Your task to perform on an android device: uninstall "Gboard" Image 0: 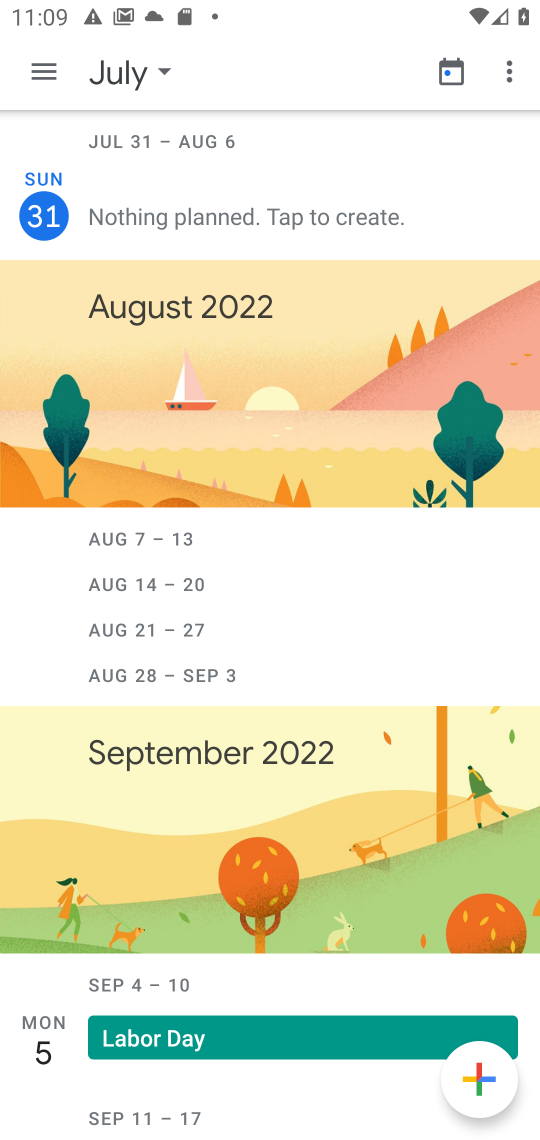
Step 0: press home button
Your task to perform on an android device: uninstall "Gboard" Image 1: 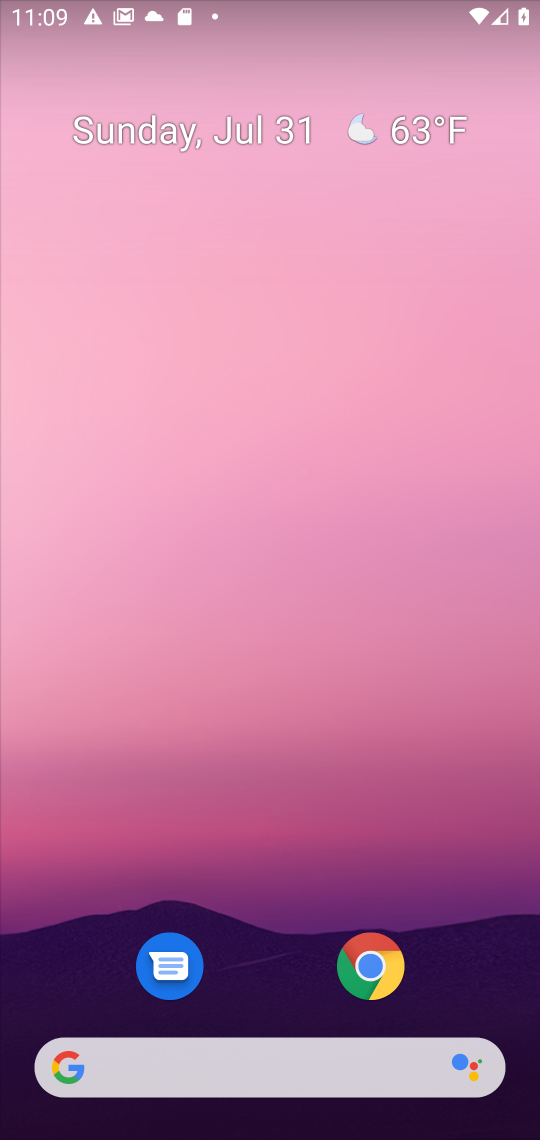
Step 1: drag from (280, 957) to (199, 72)
Your task to perform on an android device: uninstall "Gboard" Image 2: 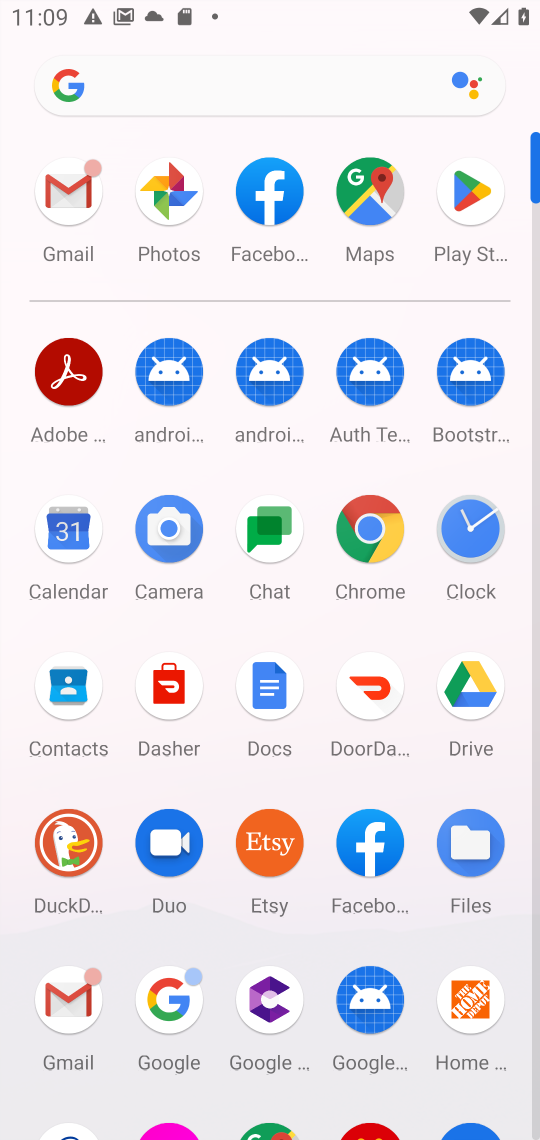
Step 2: click (479, 228)
Your task to perform on an android device: uninstall "Gboard" Image 3: 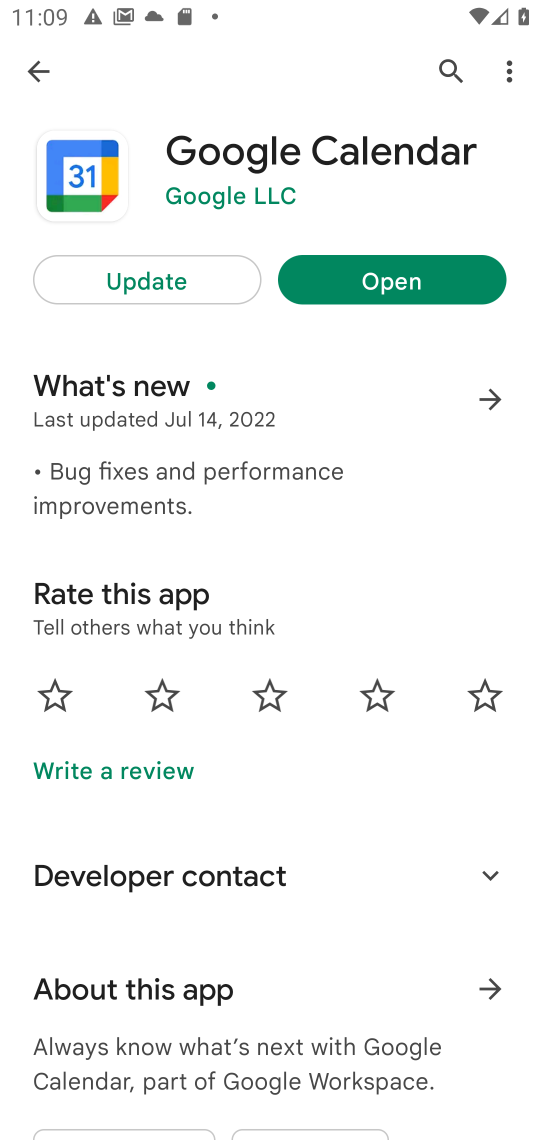
Step 3: click (30, 79)
Your task to perform on an android device: uninstall "Gboard" Image 4: 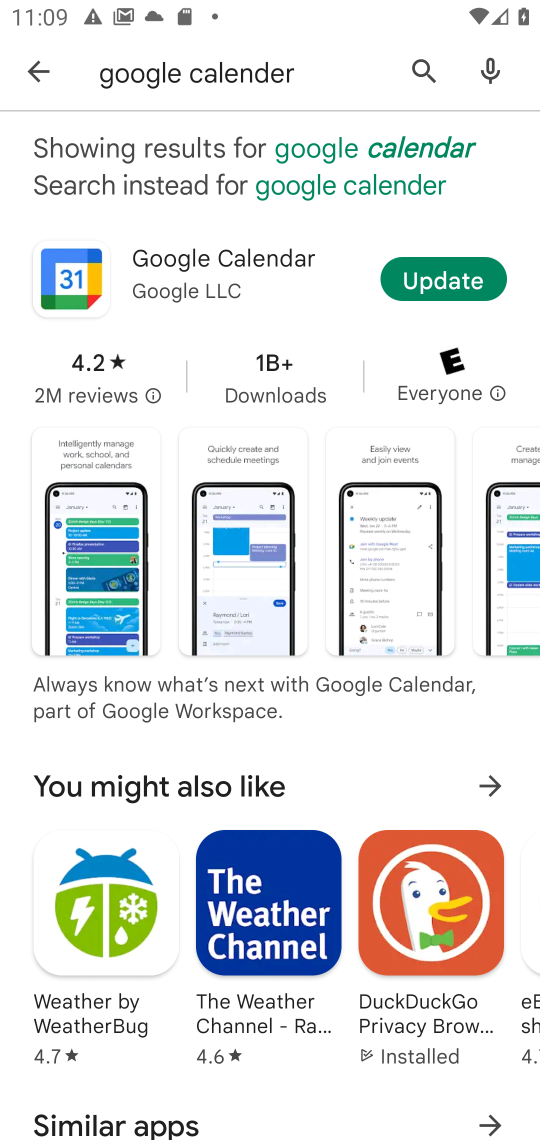
Step 4: click (205, 87)
Your task to perform on an android device: uninstall "Gboard" Image 5: 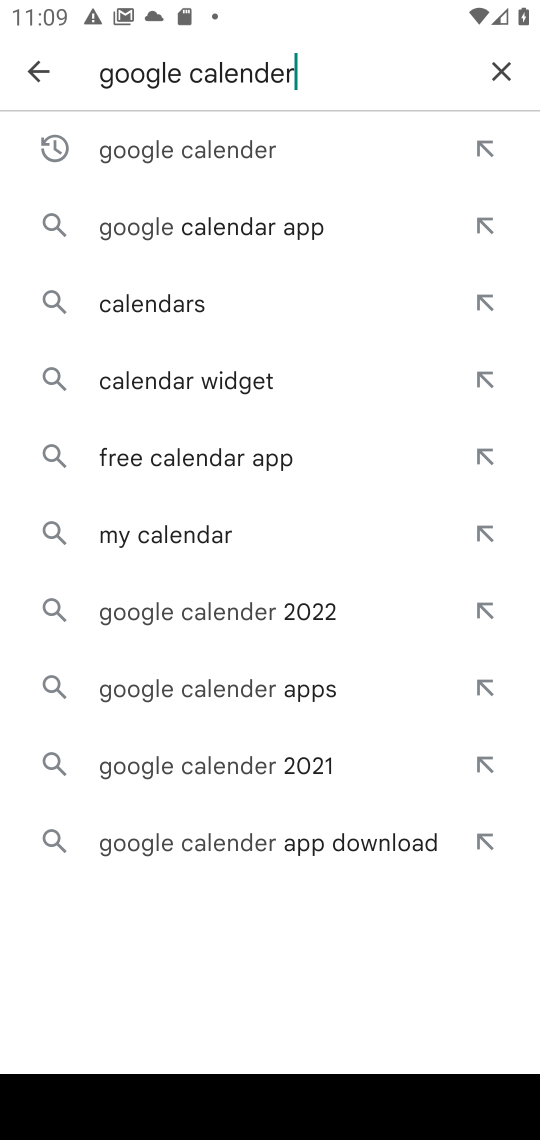
Step 5: click (490, 68)
Your task to perform on an android device: uninstall "Gboard" Image 6: 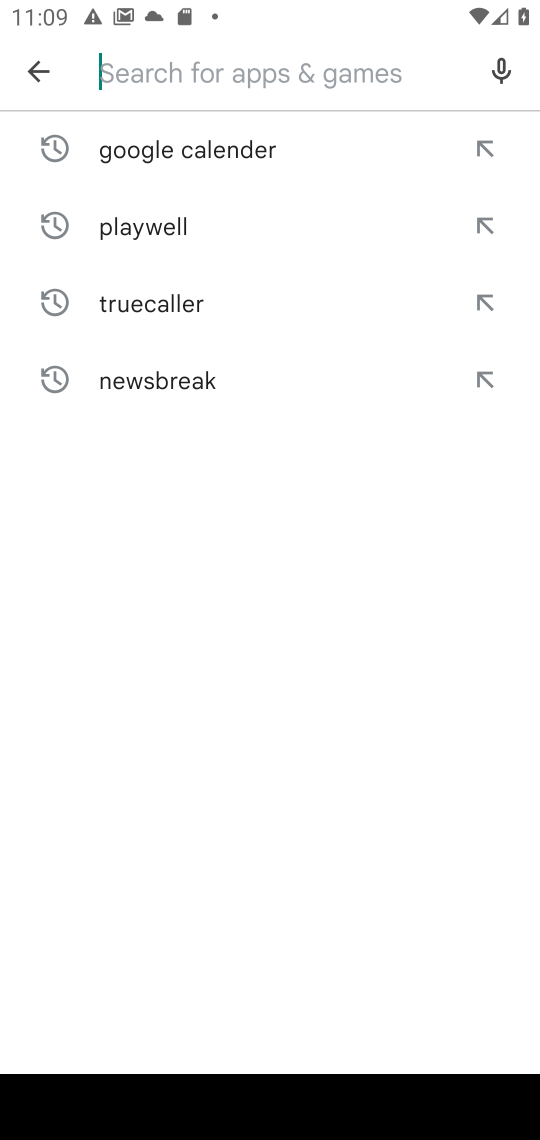
Step 6: type "Gboard"
Your task to perform on an android device: uninstall "Gboard" Image 7: 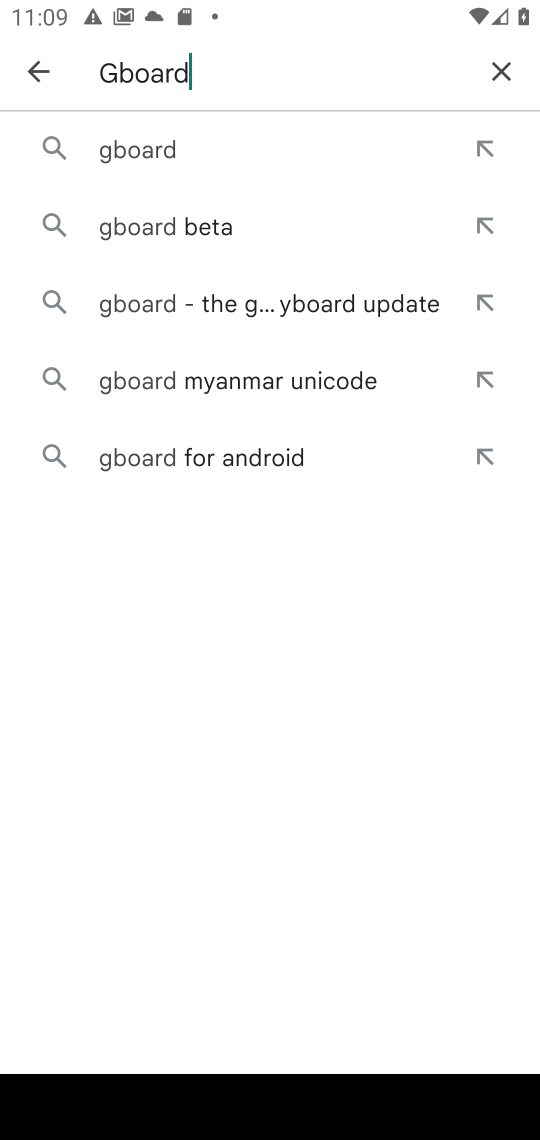
Step 7: click (126, 163)
Your task to perform on an android device: uninstall "Gboard" Image 8: 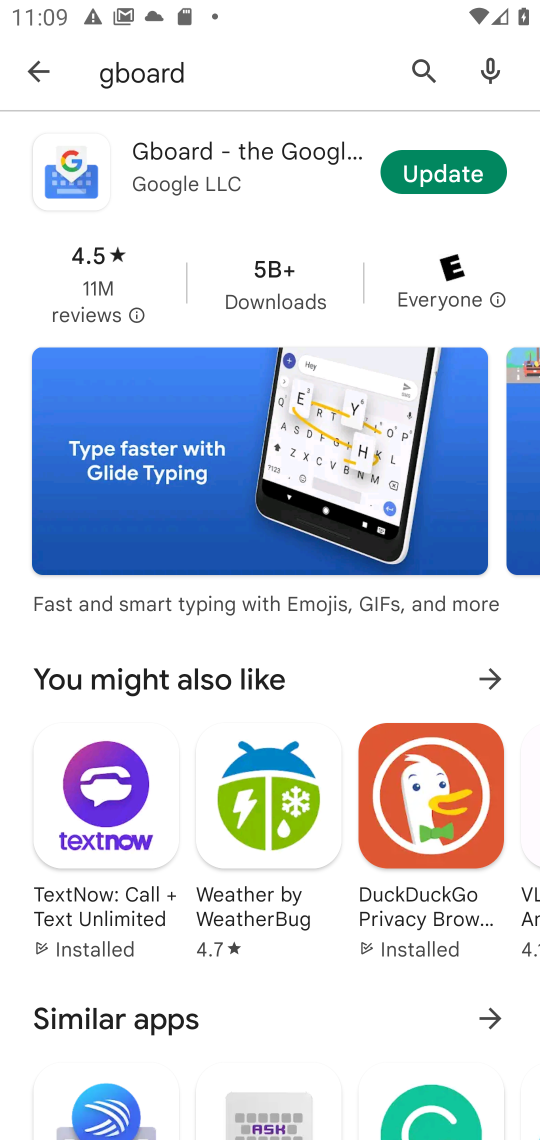
Step 8: click (94, 171)
Your task to perform on an android device: uninstall "Gboard" Image 9: 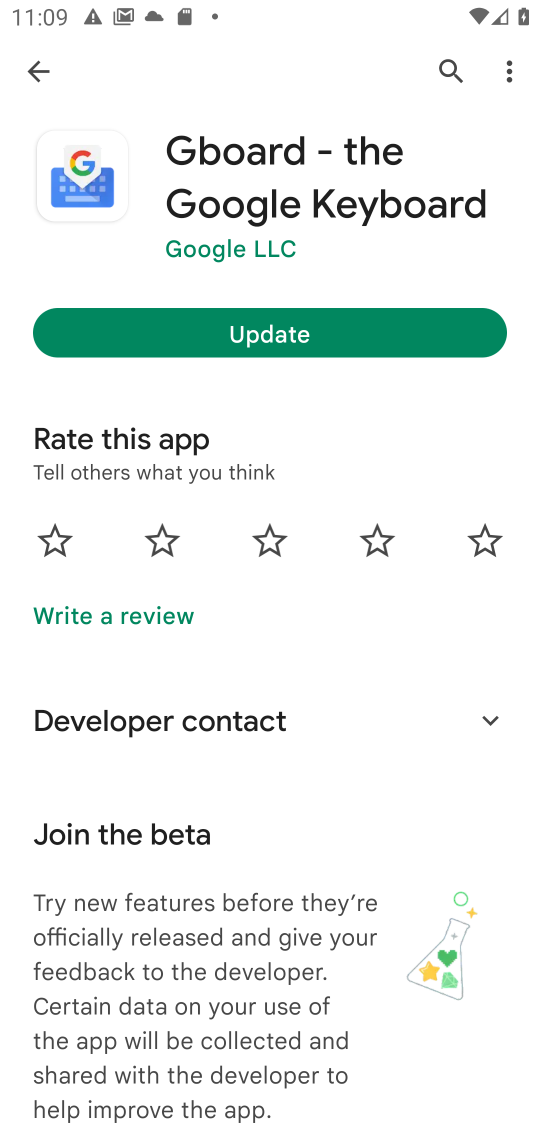
Step 9: click (339, 317)
Your task to perform on an android device: uninstall "Gboard" Image 10: 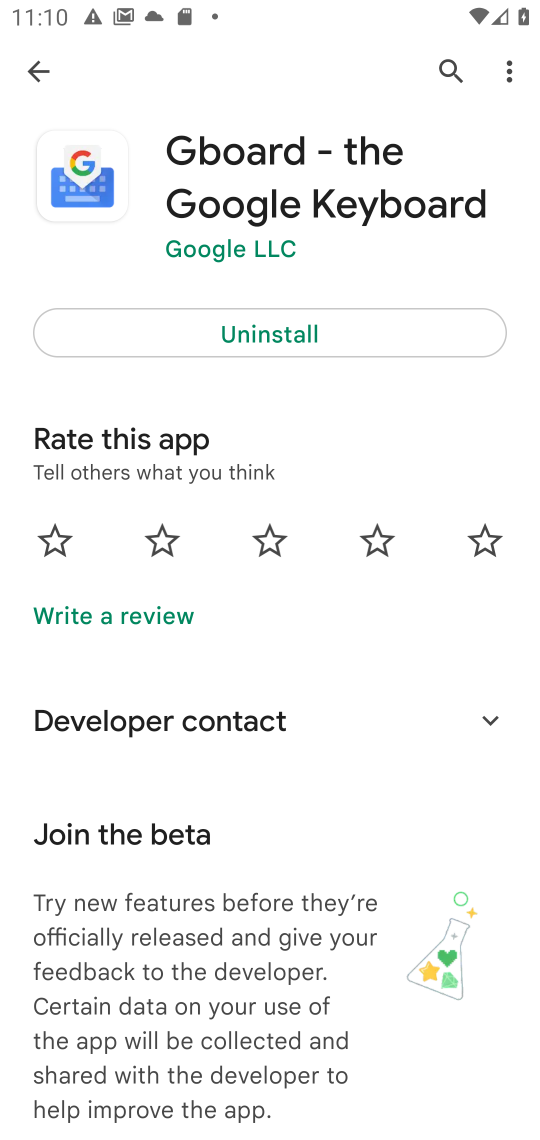
Step 10: click (272, 334)
Your task to perform on an android device: uninstall "Gboard" Image 11: 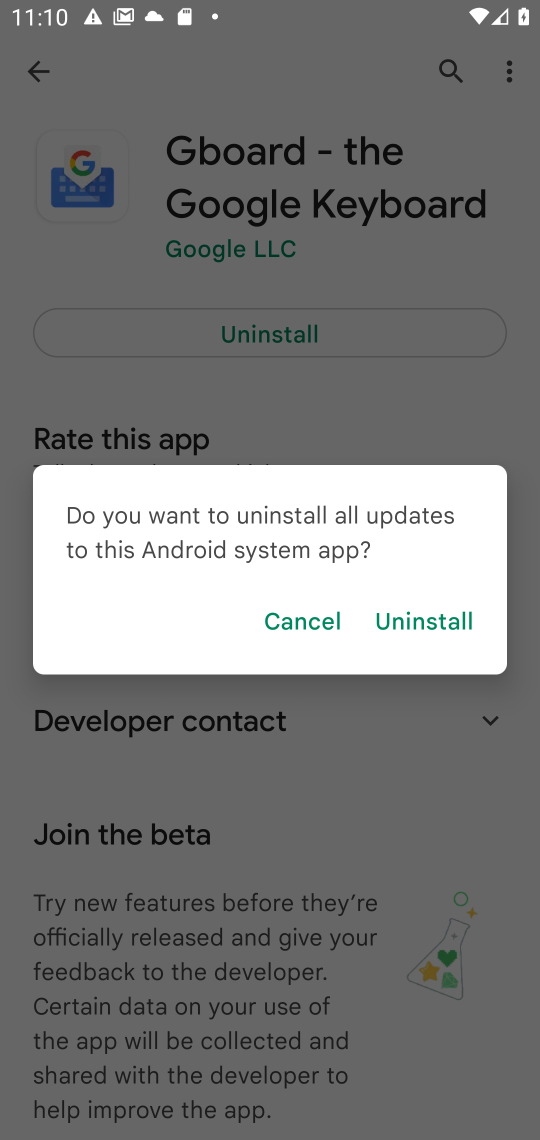
Step 11: click (439, 613)
Your task to perform on an android device: uninstall "Gboard" Image 12: 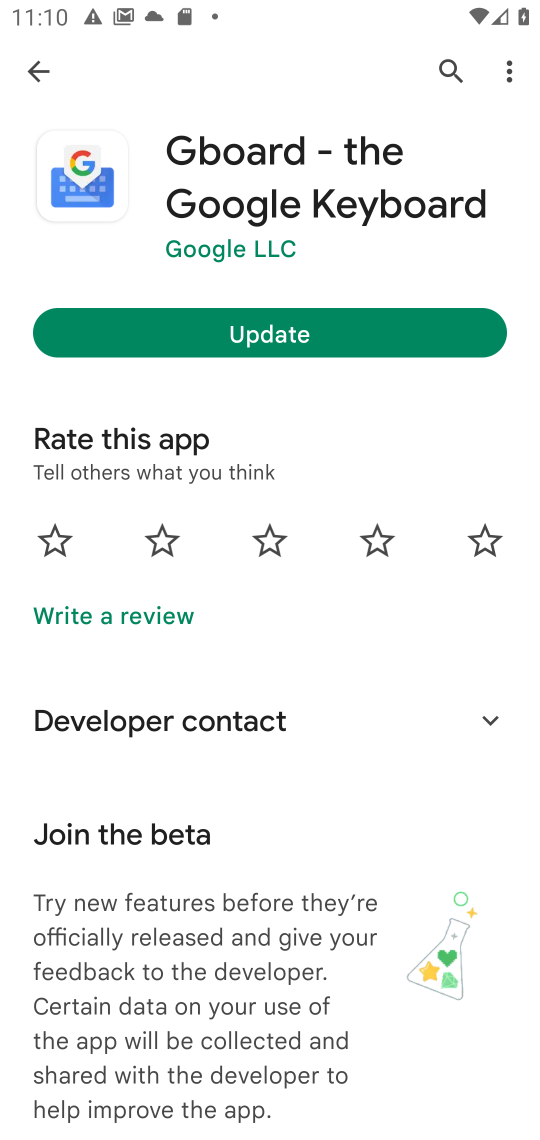
Step 12: task complete